Your task to perform on an android device: Open wifi settings Image 0: 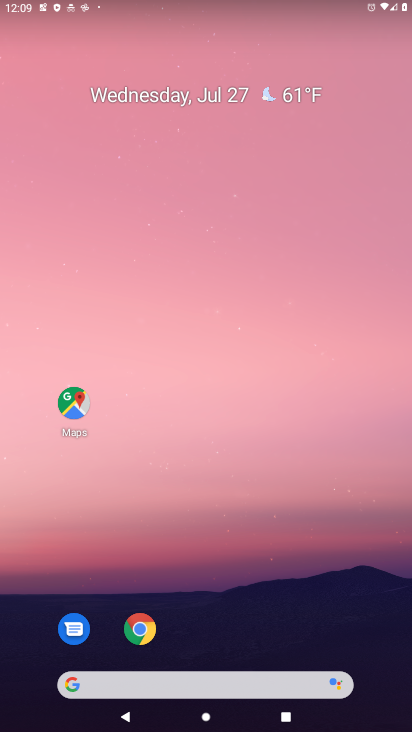
Step 0: drag from (302, 636) to (305, 112)
Your task to perform on an android device: Open wifi settings Image 1: 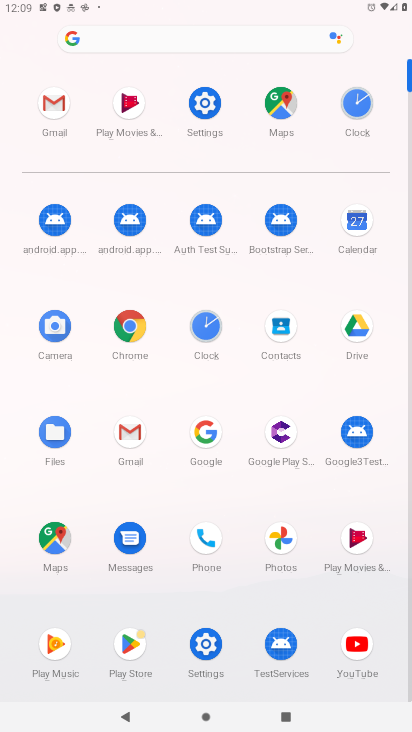
Step 1: click (201, 123)
Your task to perform on an android device: Open wifi settings Image 2: 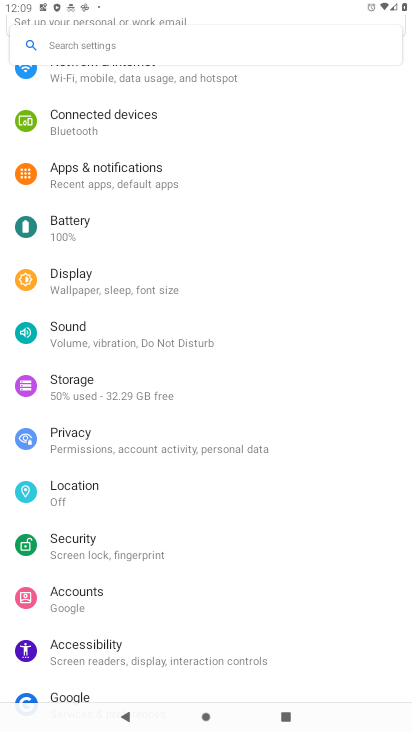
Step 2: click (202, 92)
Your task to perform on an android device: Open wifi settings Image 3: 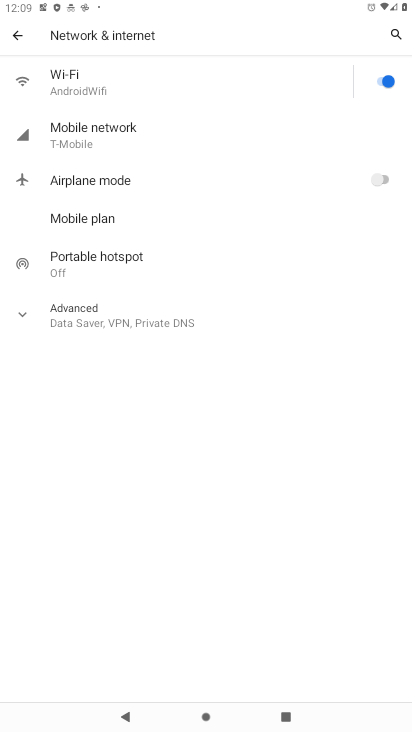
Step 3: task complete